Your task to perform on an android device: What's the weather going to be tomorrow? Image 0: 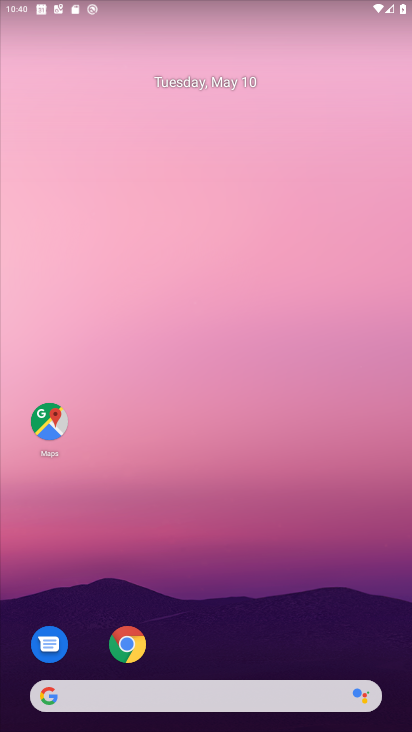
Step 0: drag from (191, 637) to (318, 156)
Your task to perform on an android device: What's the weather going to be tomorrow? Image 1: 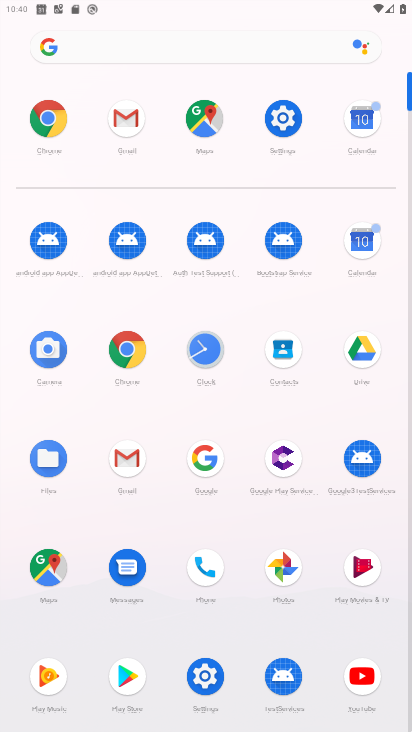
Step 1: click (199, 475)
Your task to perform on an android device: What's the weather going to be tomorrow? Image 2: 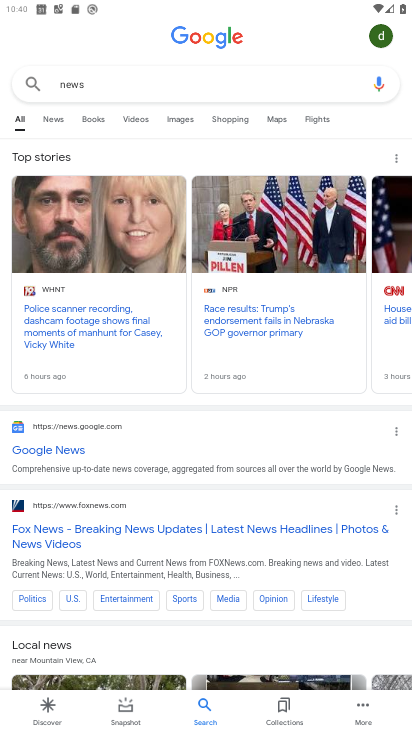
Step 2: click (253, 90)
Your task to perform on an android device: What's the weather going to be tomorrow? Image 3: 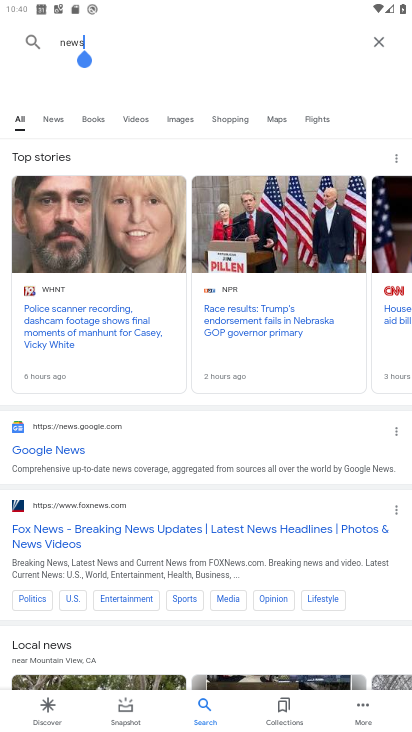
Step 3: click (253, 90)
Your task to perform on an android device: What's the weather going to be tomorrow? Image 4: 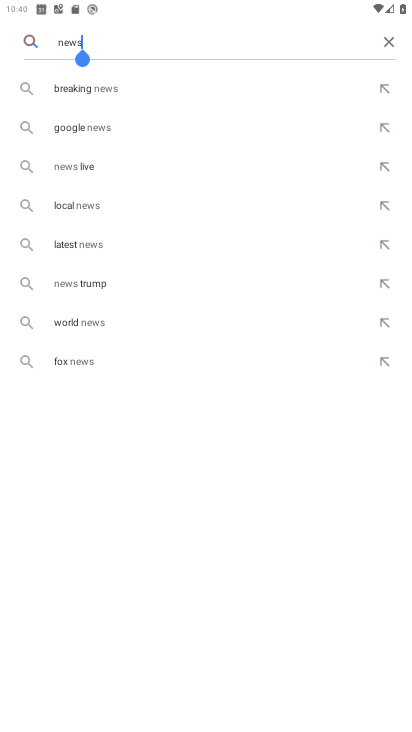
Step 4: click (253, 90)
Your task to perform on an android device: What's the weather going to be tomorrow? Image 5: 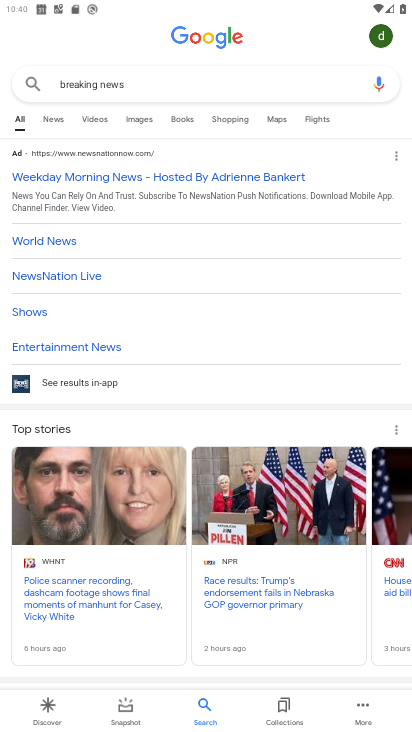
Step 5: click (159, 84)
Your task to perform on an android device: What's the weather going to be tomorrow? Image 6: 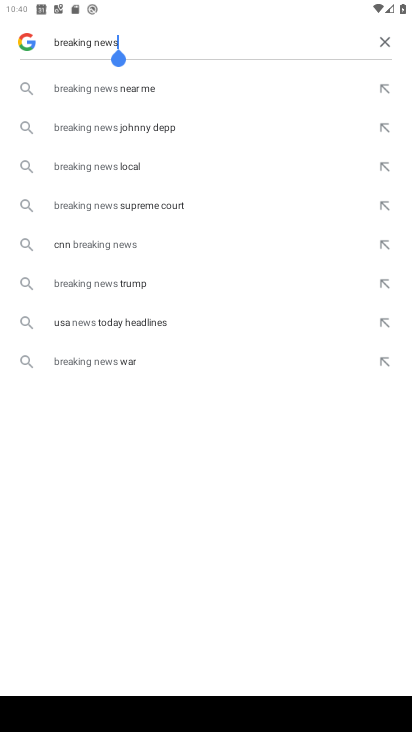
Step 6: click (385, 42)
Your task to perform on an android device: What's the weather going to be tomorrow? Image 7: 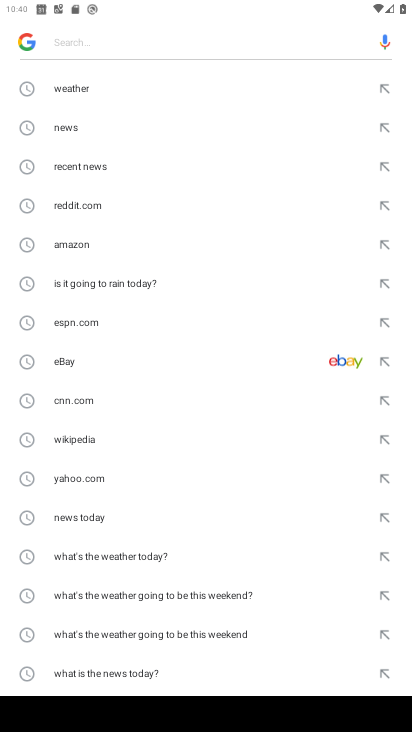
Step 7: click (249, 86)
Your task to perform on an android device: What's the weather going to be tomorrow? Image 8: 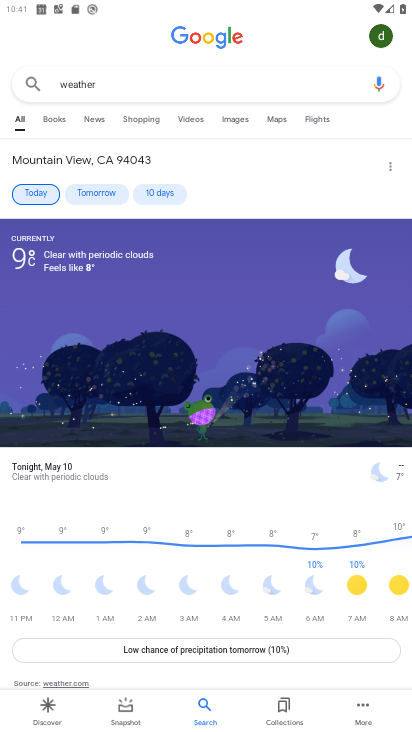
Step 8: click (107, 197)
Your task to perform on an android device: What's the weather going to be tomorrow? Image 9: 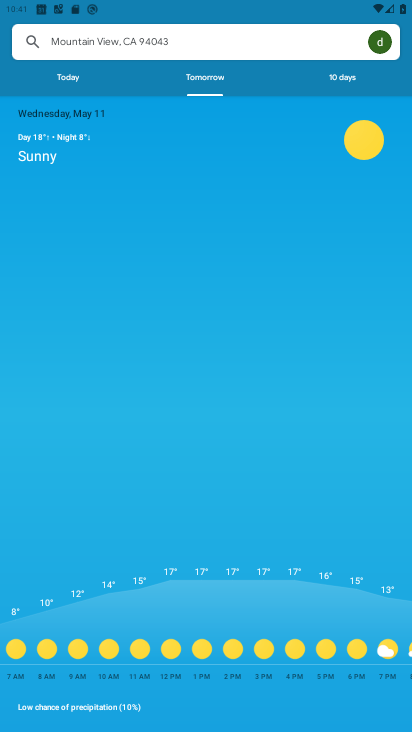
Step 9: task complete